Your task to perform on an android device: Go to Wikipedia Image 0: 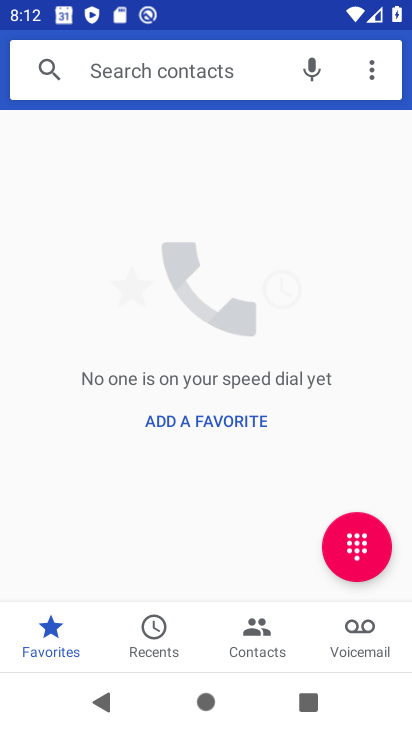
Step 0: press home button
Your task to perform on an android device: Go to Wikipedia Image 1: 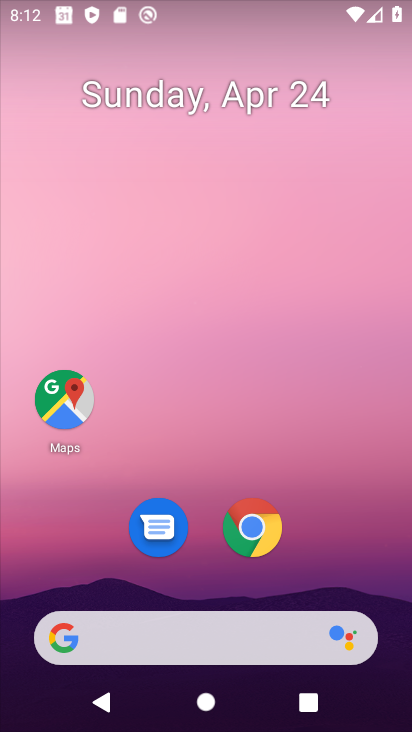
Step 1: click (255, 531)
Your task to perform on an android device: Go to Wikipedia Image 2: 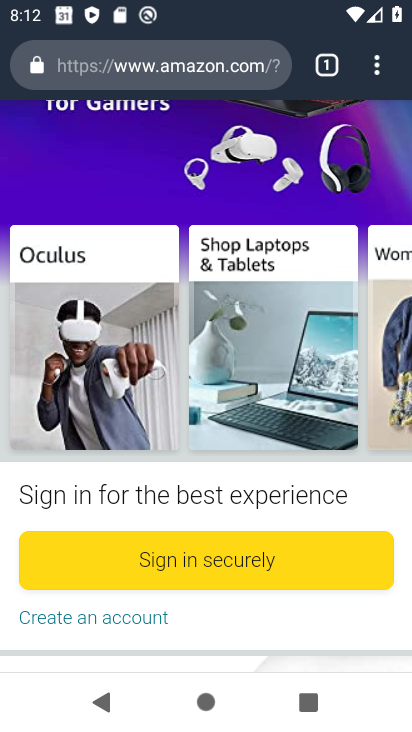
Step 2: click (195, 65)
Your task to perform on an android device: Go to Wikipedia Image 3: 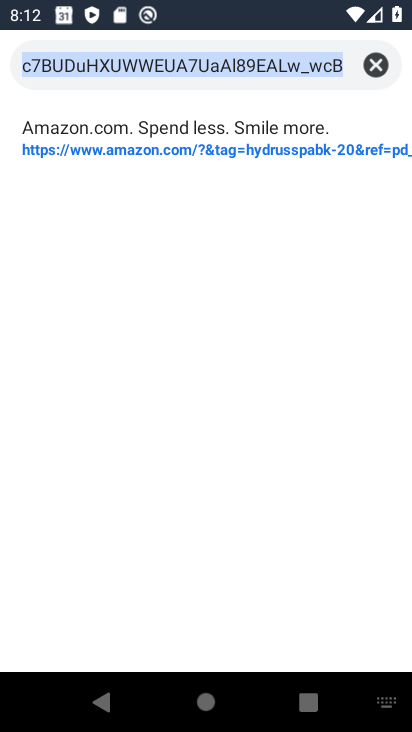
Step 3: click (378, 63)
Your task to perform on an android device: Go to Wikipedia Image 4: 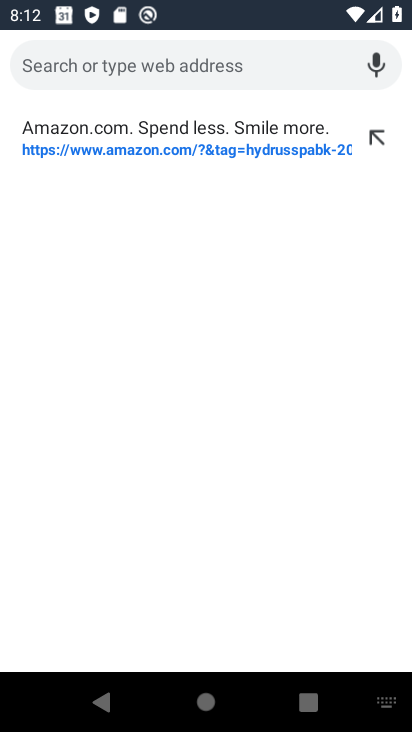
Step 4: click (122, 64)
Your task to perform on an android device: Go to Wikipedia Image 5: 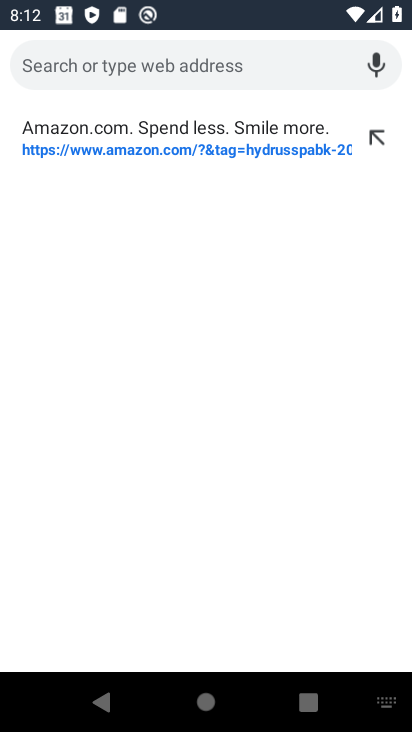
Step 5: type "wikipedia"
Your task to perform on an android device: Go to Wikipedia Image 6: 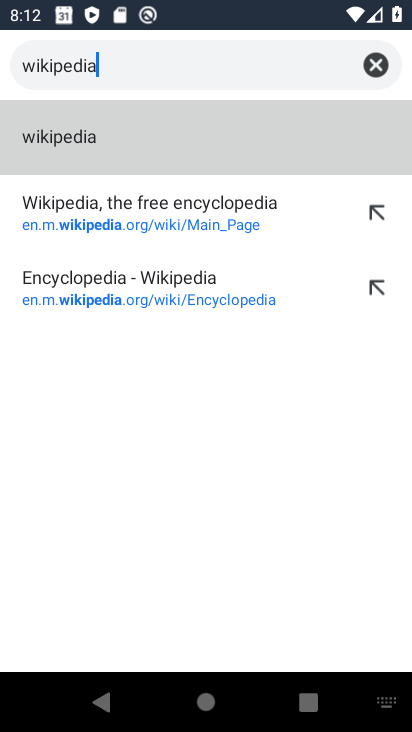
Step 6: click (65, 139)
Your task to perform on an android device: Go to Wikipedia Image 7: 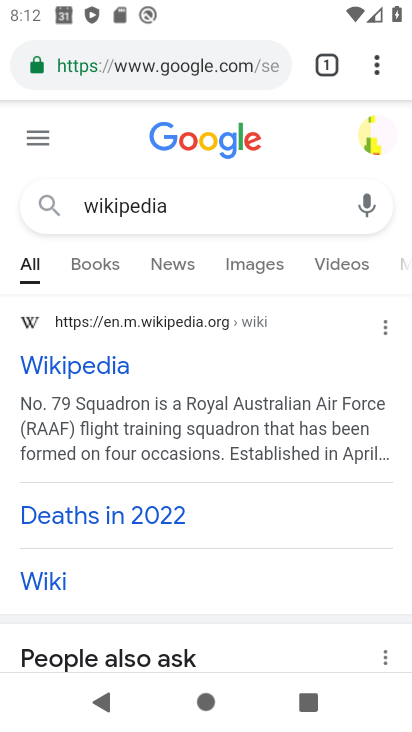
Step 7: click (70, 365)
Your task to perform on an android device: Go to Wikipedia Image 8: 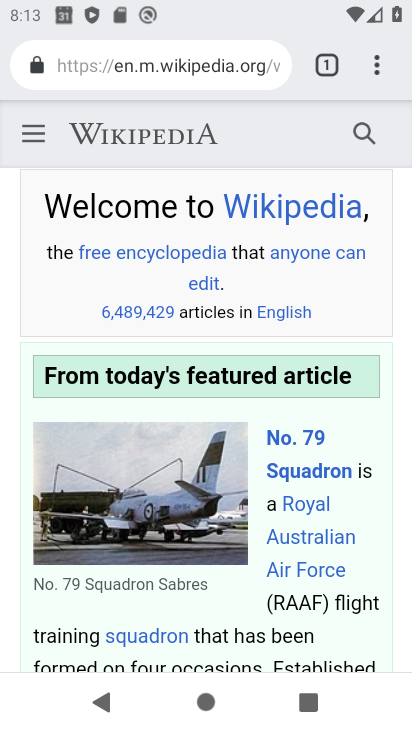
Step 8: task complete